Your task to perform on an android device: Search for "usb-c to usb-a" on costco, select the first entry, add it to the cart, then select checkout. Image 0: 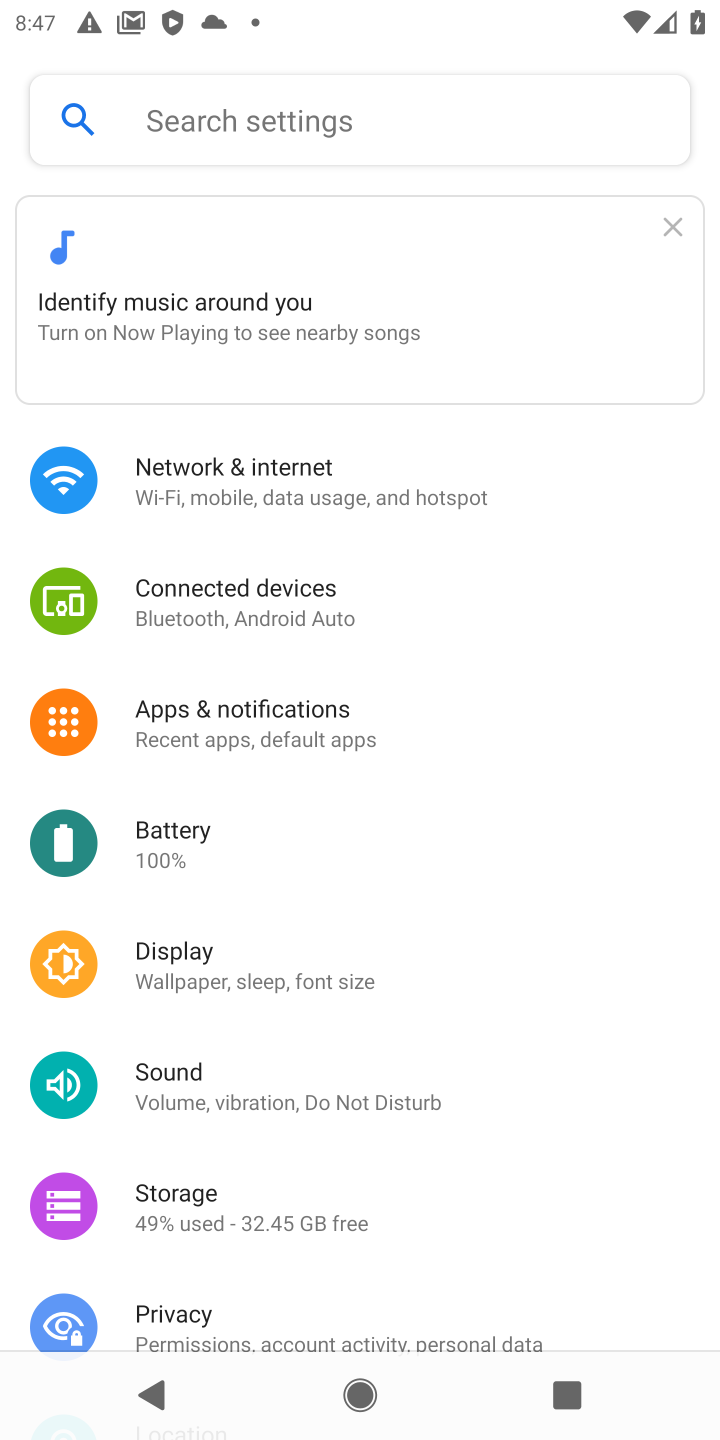
Step 0: press home button
Your task to perform on an android device: Search for "usb-c to usb-a" on costco, select the first entry, add it to the cart, then select checkout. Image 1: 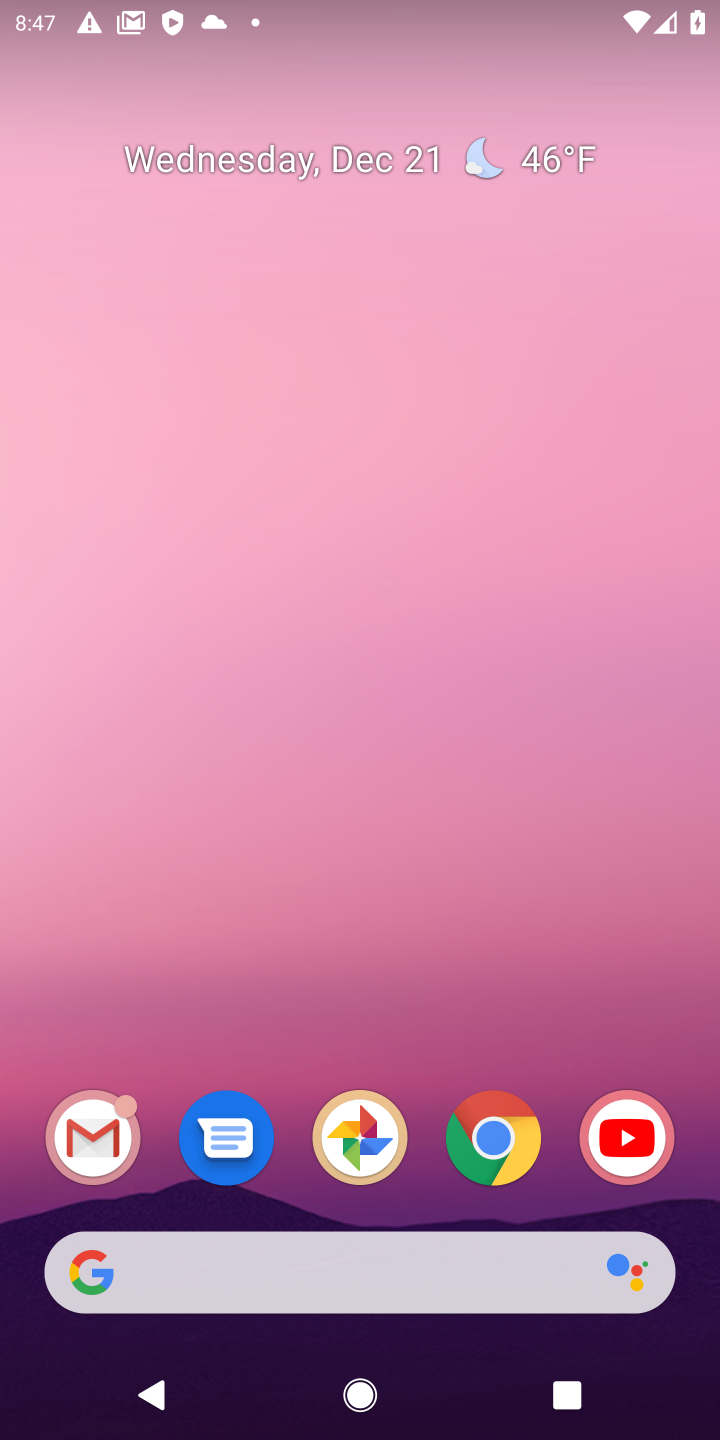
Step 1: click (484, 1132)
Your task to perform on an android device: Search for "usb-c to usb-a" on costco, select the first entry, add it to the cart, then select checkout. Image 2: 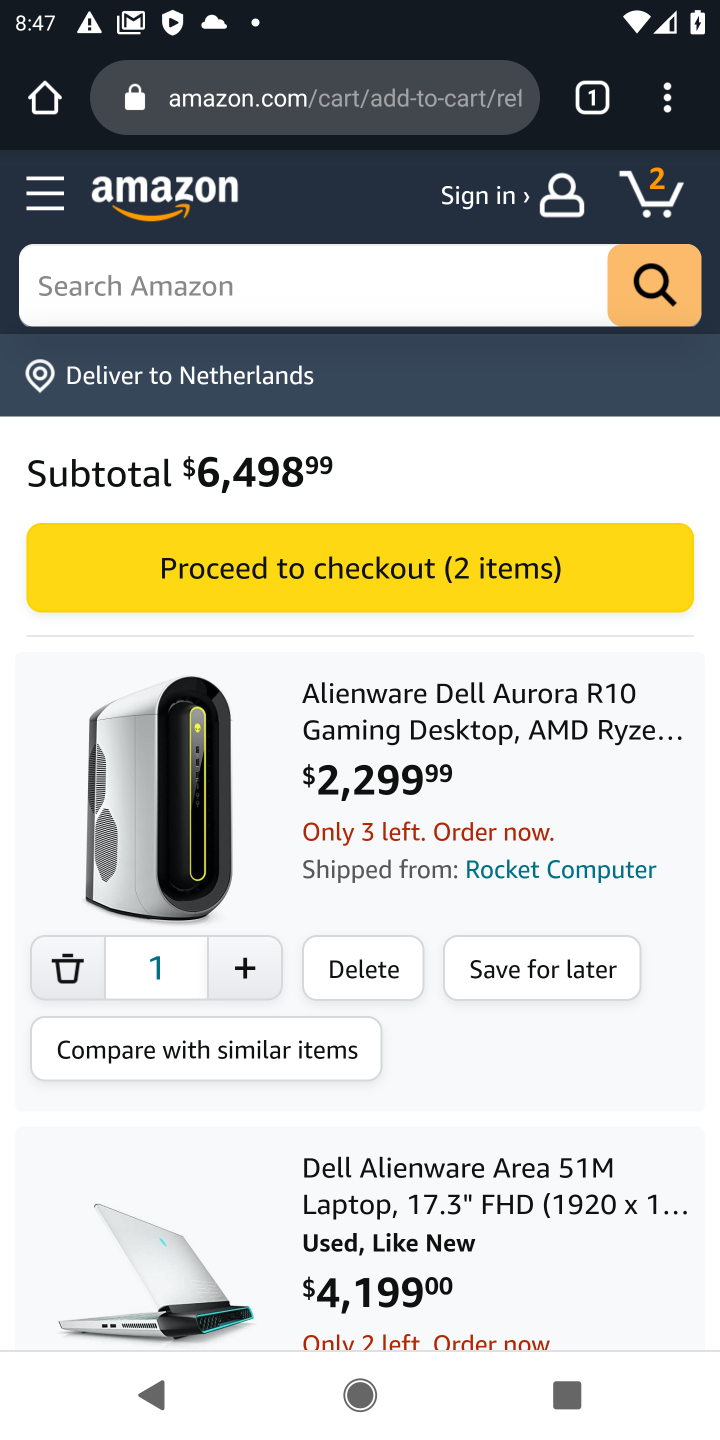
Step 2: click (237, 98)
Your task to perform on an android device: Search for "usb-c to usb-a" on costco, select the first entry, add it to the cart, then select checkout. Image 3: 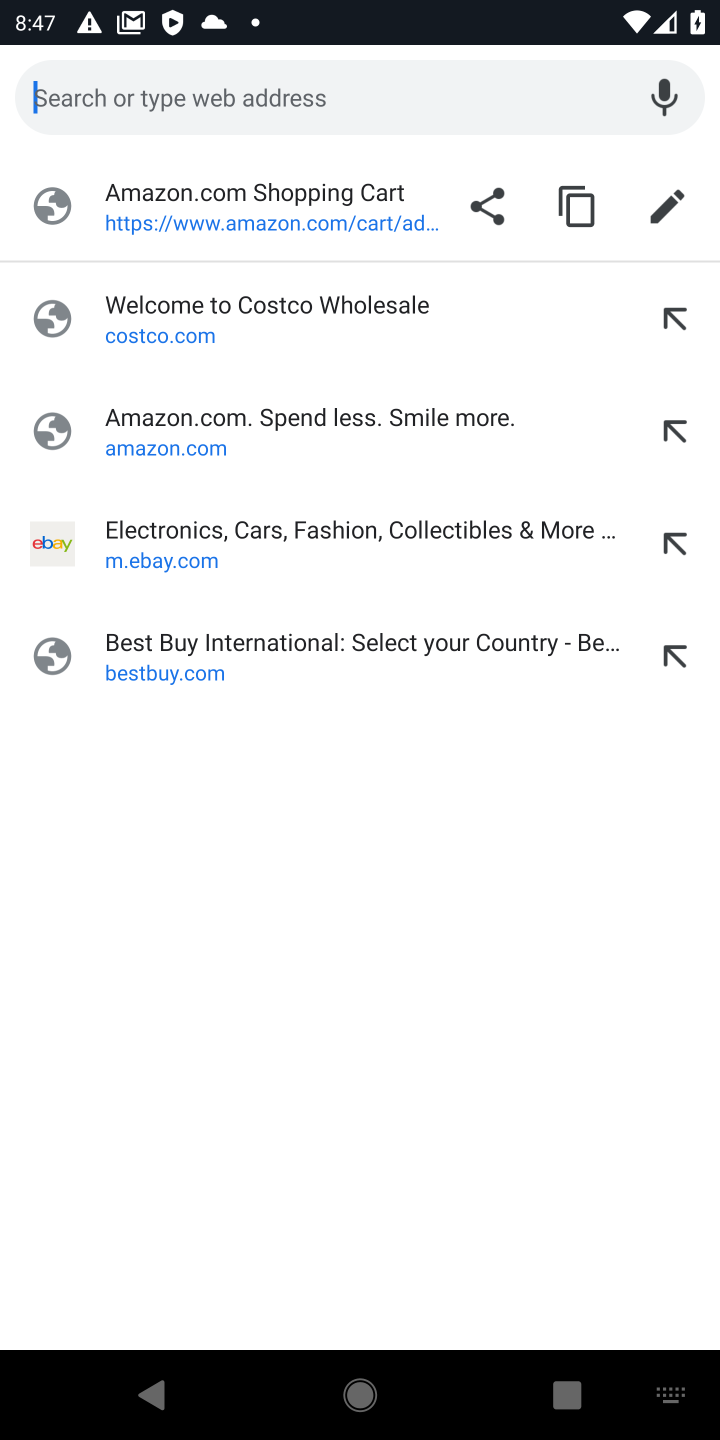
Step 3: click (157, 338)
Your task to perform on an android device: Search for "usb-c to usb-a" on costco, select the first entry, add it to the cart, then select checkout. Image 4: 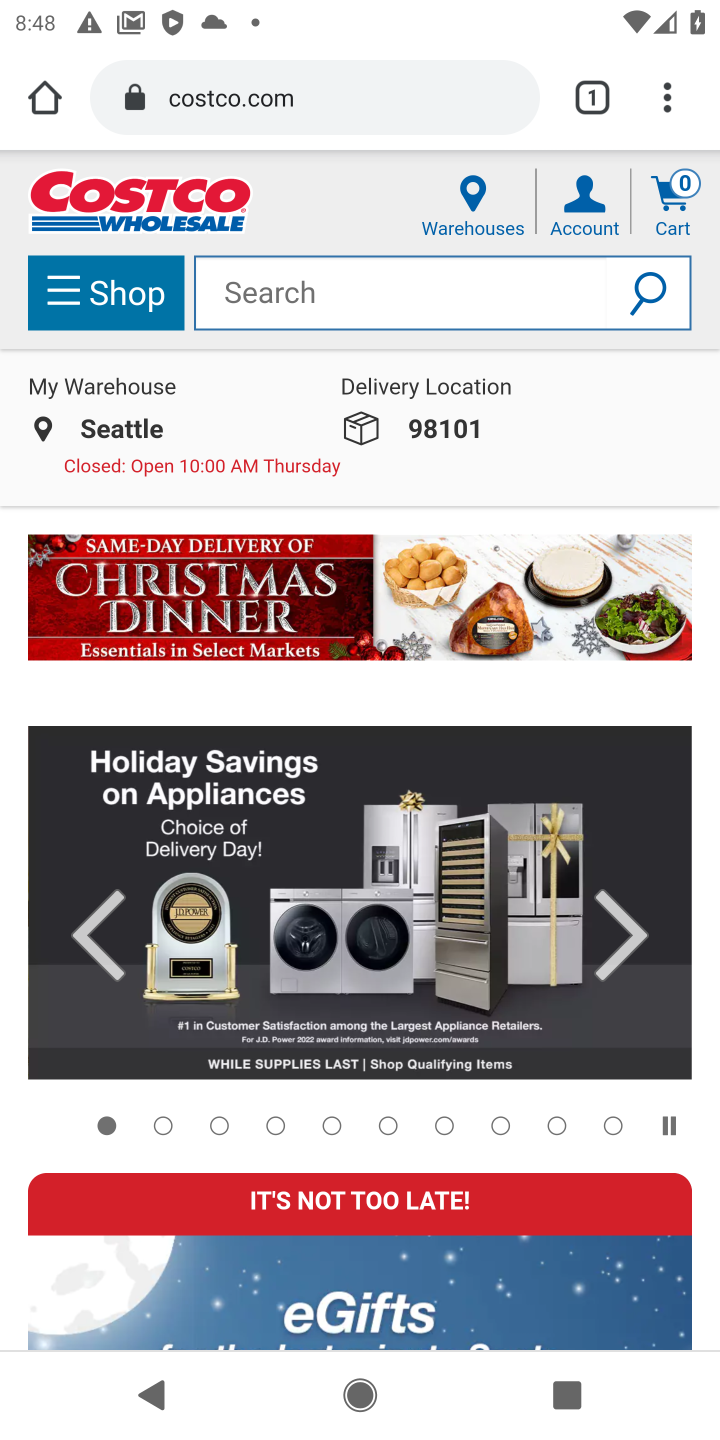
Step 4: click (229, 303)
Your task to perform on an android device: Search for "usb-c to usb-a" on costco, select the first entry, add it to the cart, then select checkout. Image 5: 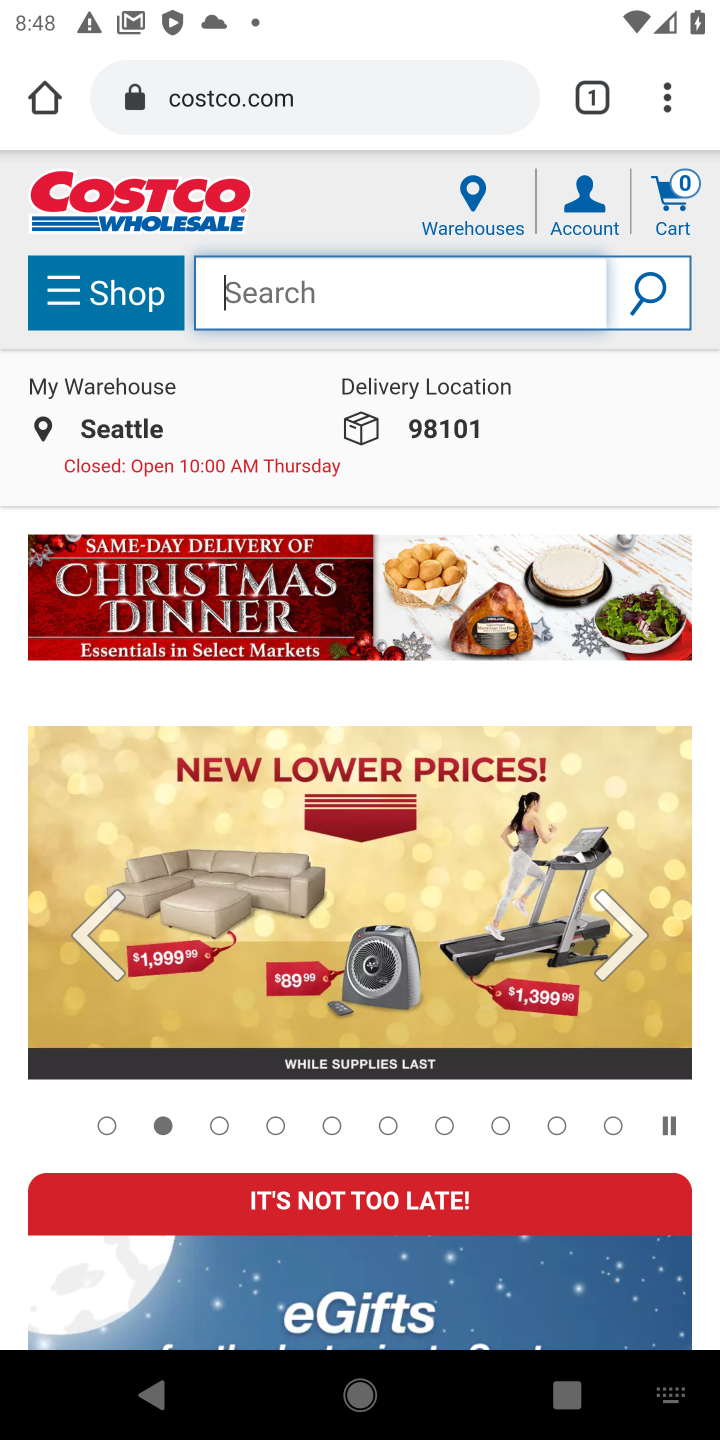
Step 5: type "usb-c to usb-a"
Your task to perform on an android device: Search for "usb-c to usb-a" on costco, select the first entry, add it to the cart, then select checkout. Image 6: 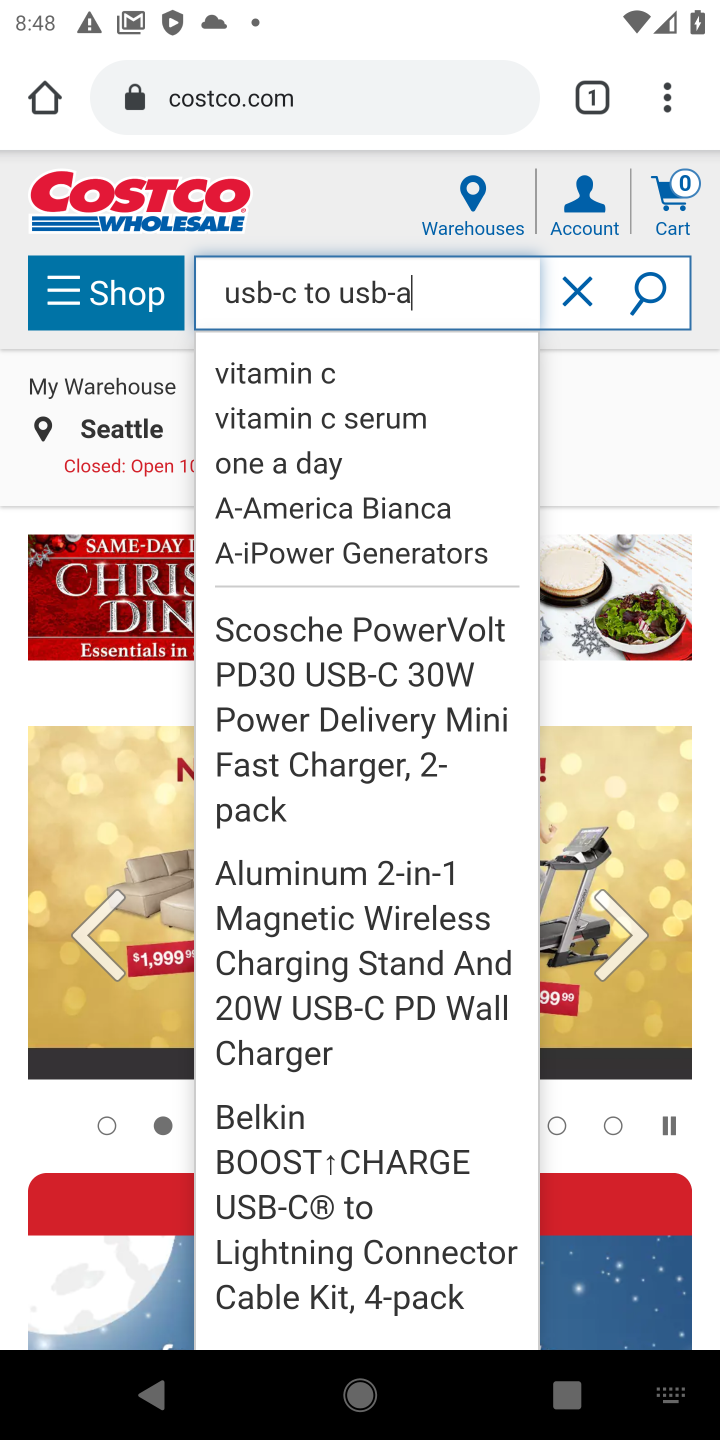
Step 6: click (648, 289)
Your task to perform on an android device: Search for "usb-c to usb-a" on costco, select the first entry, add it to the cart, then select checkout. Image 7: 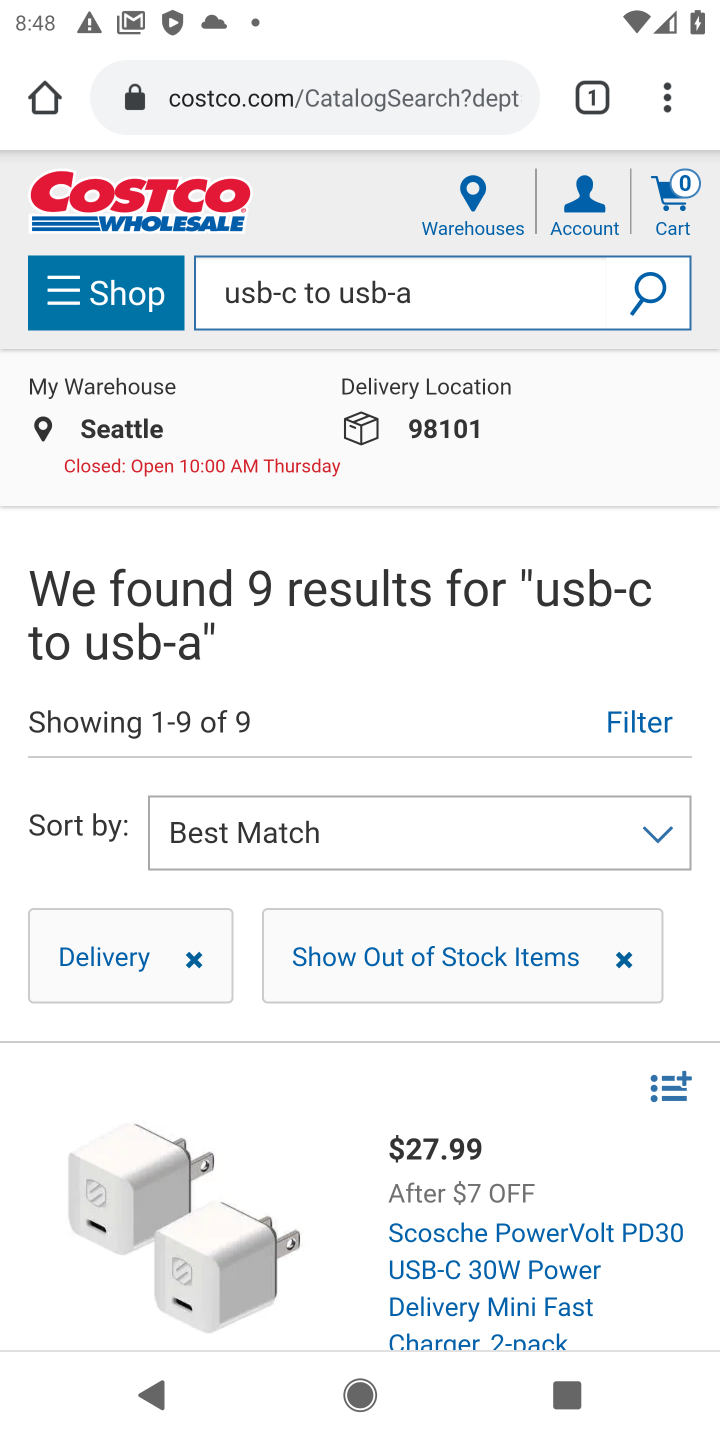
Step 7: task complete